Your task to perform on an android device: change alarm snooze length Image 0: 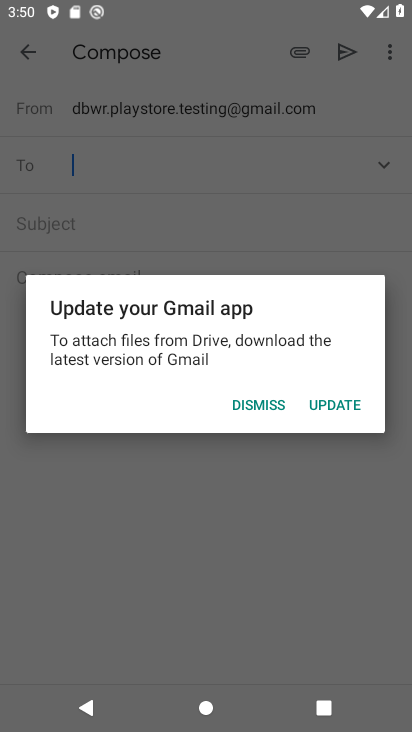
Step 0: press home button
Your task to perform on an android device: change alarm snooze length Image 1: 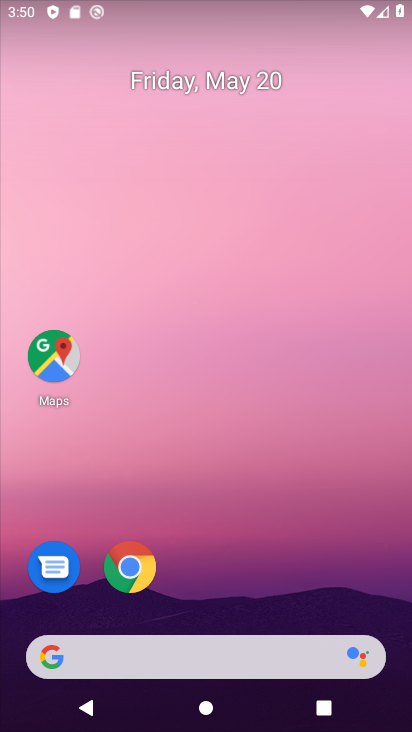
Step 1: drag from (199, 615) to (277, 149)
Your task to perform on an android device: change alarm snooze length Image 2: 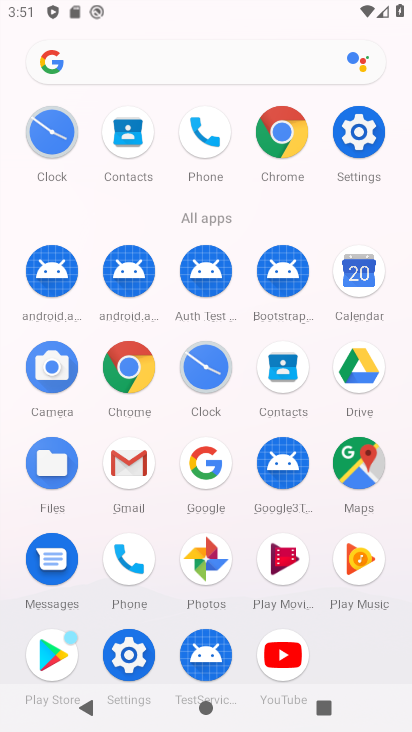
Step 2: click (209, 366)
Your task to perform on an android device: change alarm snooze length Image 3: 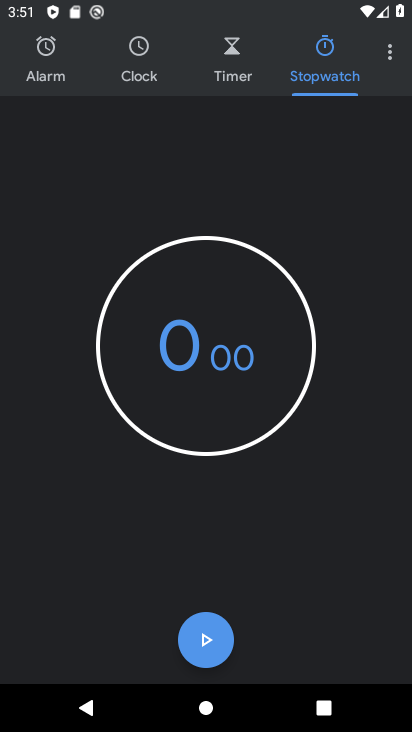
Step 3: click (209, 366)
Your task to perform on an android device: change alarm snooze length Image 4: 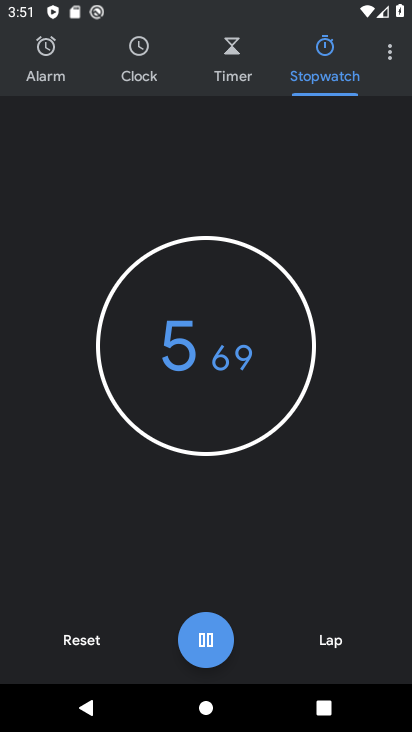
Step 4: click (63, 44)
Your task to perform on an android device: change alarm snooze length Image 5: 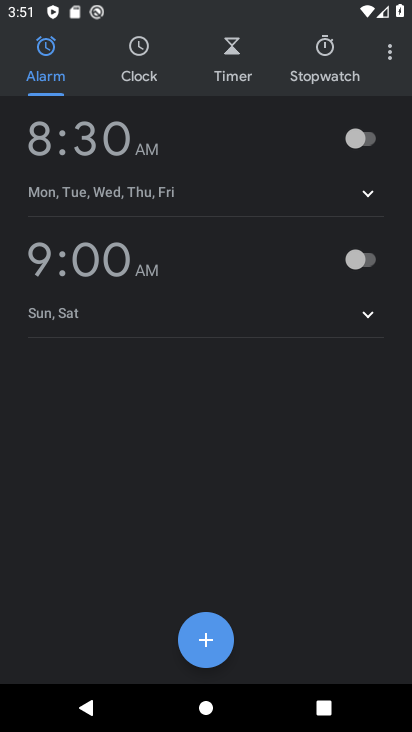
Step 5: click (402, 60)
Your task to perform on an android device: change alarm snooze length Image 6: 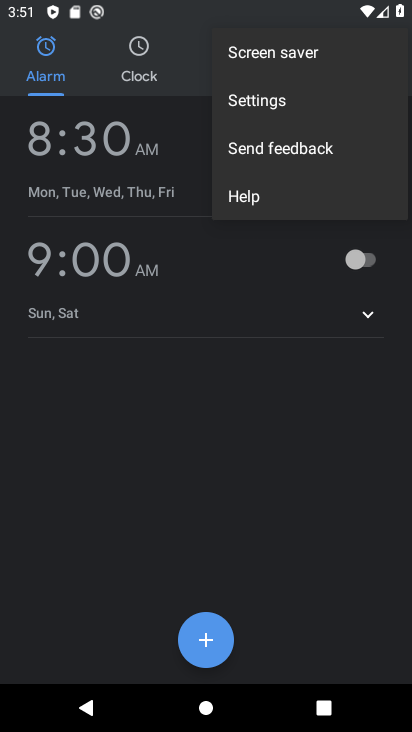
Step 6: click (309, 97)
Your task to perform on an android device: change alarm snooze length Image 7: 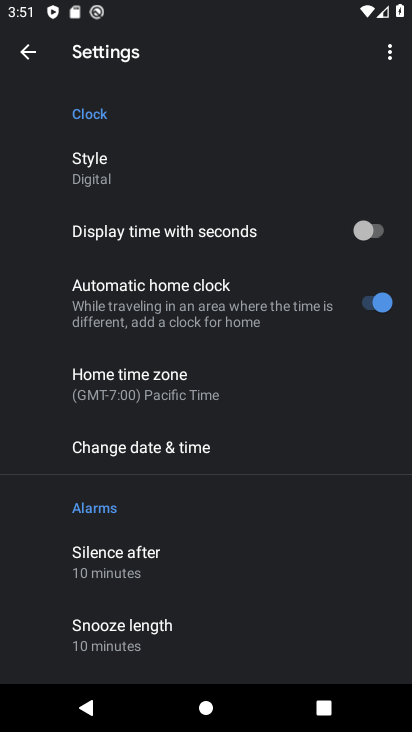
Step 7: click (179, 619)
Your task to perform on an android device: change alarm snooze length Image 8: 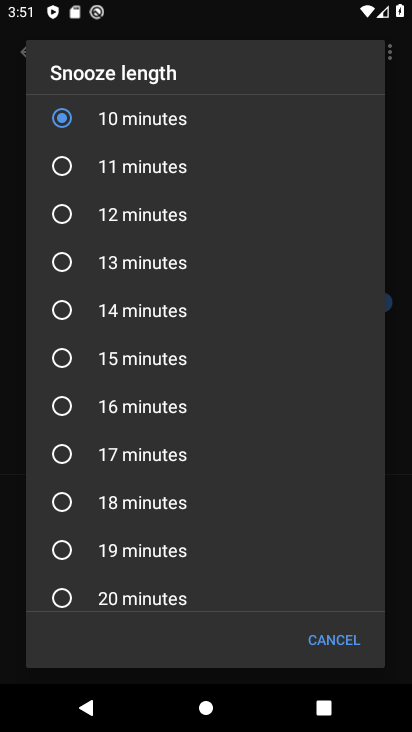
Step 8: click (171, 389)
Your task to perform on an android device: change alarm snooze length Image 9: 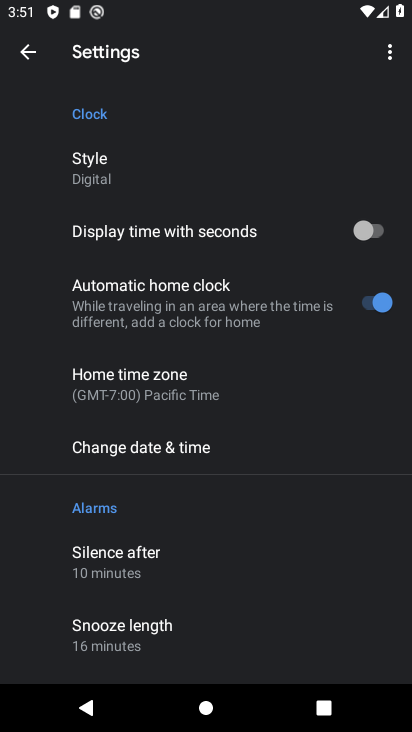
Step 9: task complete